Your task to perform on an android device: see sites visited before in the chrome app Image 0: 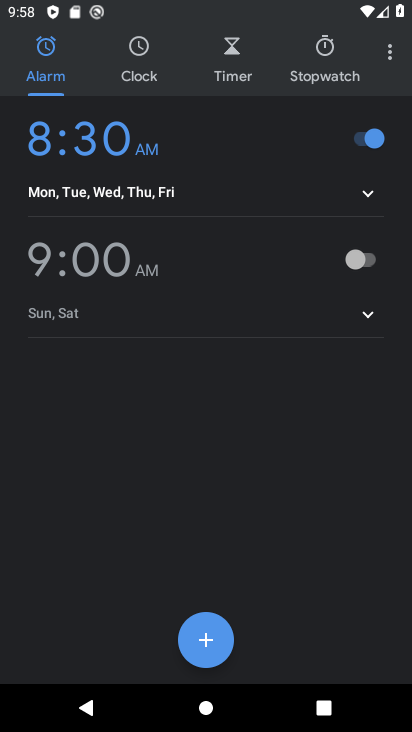
Step 0: press back button
Your task to perform on an android device: see sites visited before in the chrome app Image 1: 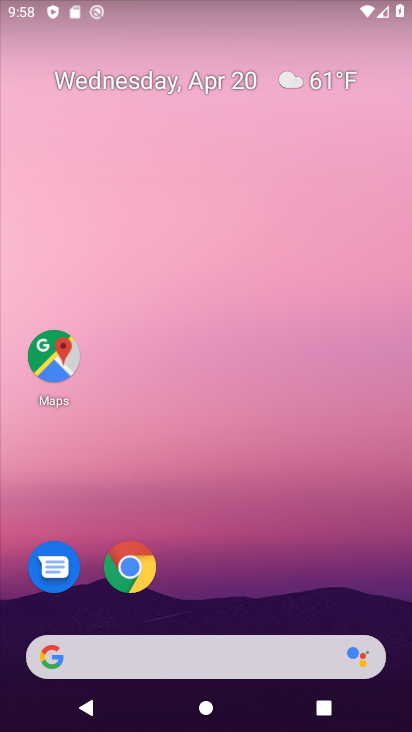
Step 1: click (136, 564)
Your task to perform on an android device: see sites visited before in the chrome app Image 2: 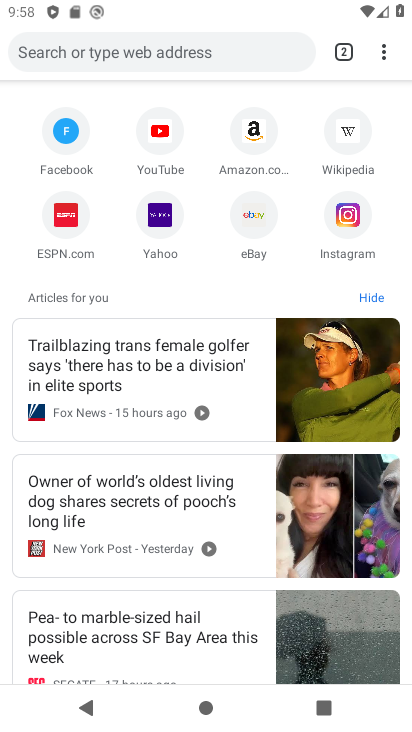
Step 2: task complete